Your task to perform on an android device: open a bookmark in the chrome app Image 0: 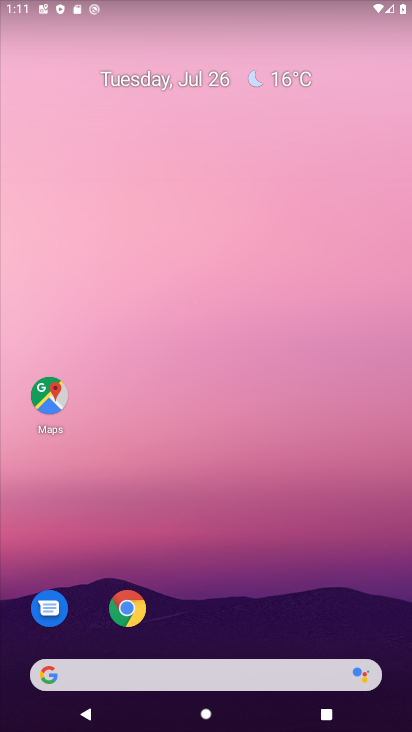
Step 0: click (126, 602)
Your task to perform on an android device: open a bookmark in the chrome app Image 1: 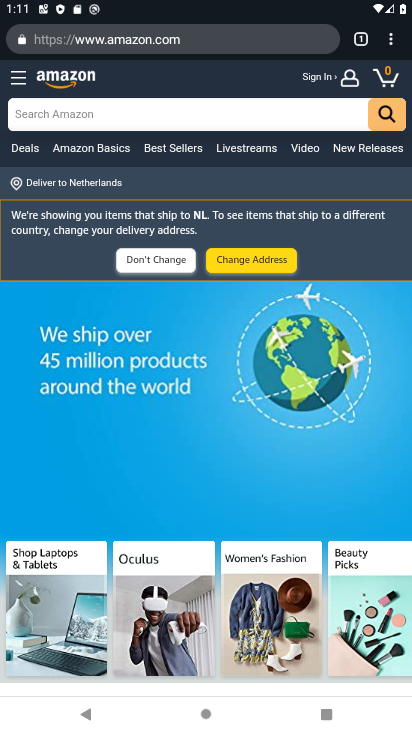
Step 1: task complete